Your task to perform on an android device: Go to Google Image 0: 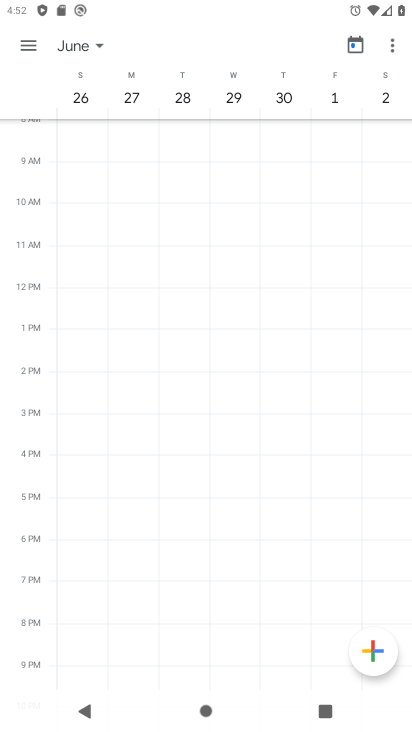
Step 0: press home button
Your task to perform on an android device: Go to Google Image 1: 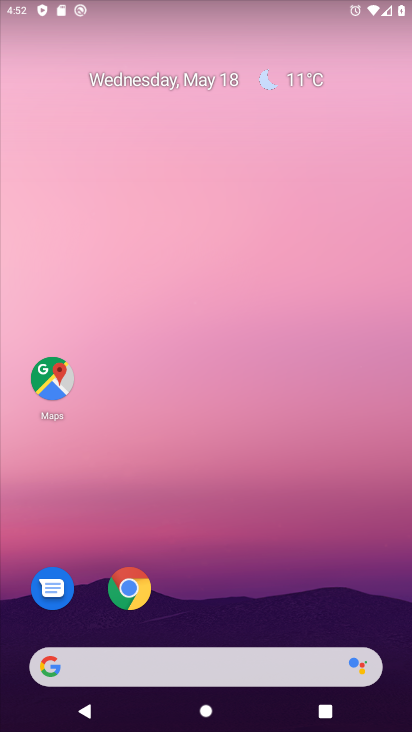
Step 1: drag from (215, 569) to (238, 51)
Your task to perform on an android device: Go to Google Image 2: 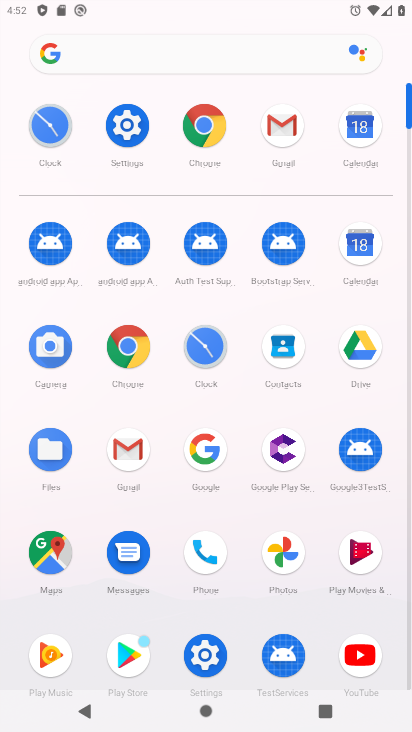
Step 2: click (205, 455)
Your task to perform on an android device: Go to Google Image 3: 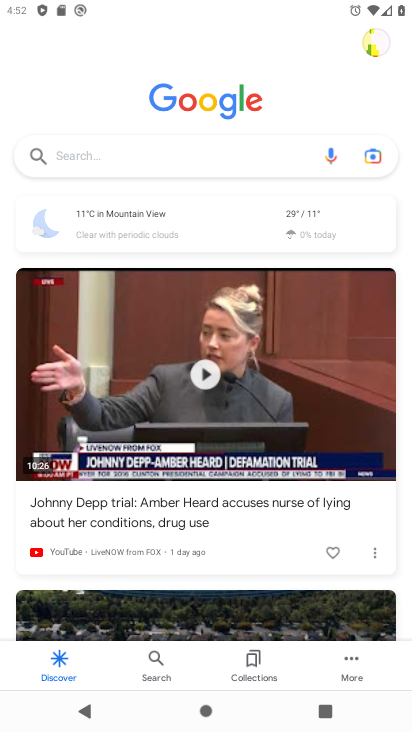
Step 3: task complete